Your task to perform on an android device: stop showing notifications on the lock screen Image 0: 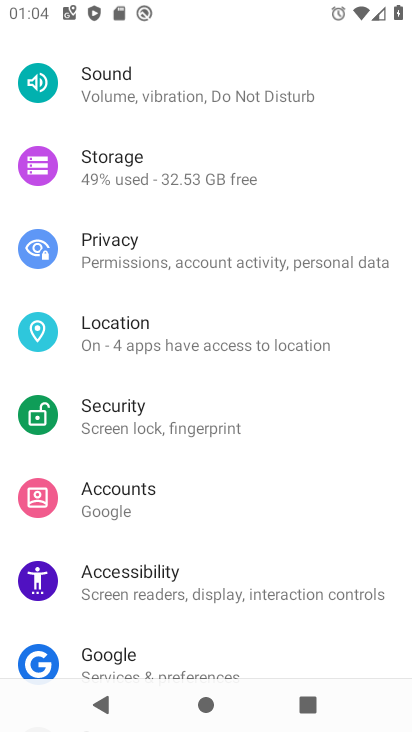
Step 0: press home button
Your task to perform on an android device: stop showing notifications on the lock screen Image 1: 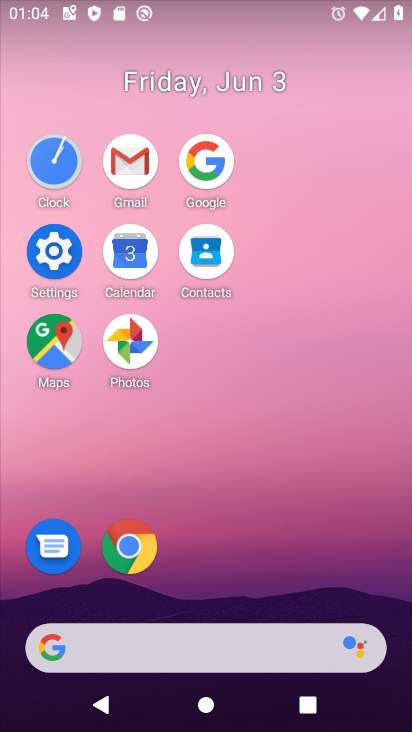
Step 1: click (67, 260)
Your task to perform on an android device: stop showing notifications on the lock screen Image 2: 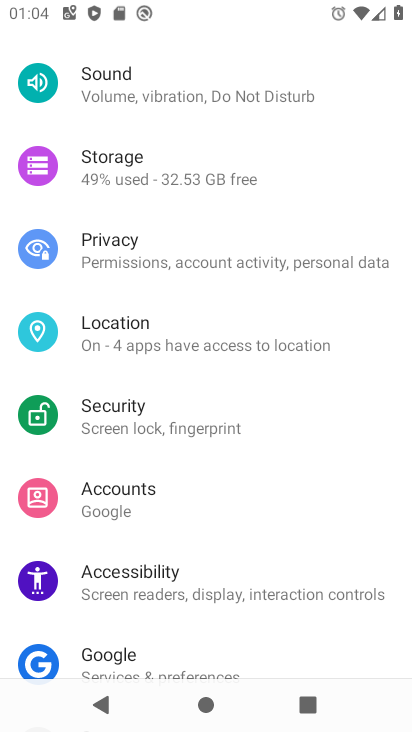
Step 2: drag from (375, 549) to (382, 599)
Your task to perform on an android device: stop showing notifications on the lock screen Image 3: 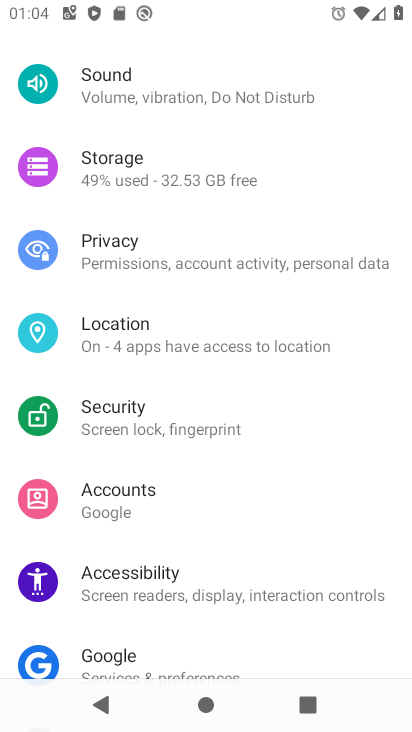
Step 3: drag from (233, 177) to (266, 494)
Your task to perform on an android device: stop showing notifications on the lock screen Image 4: 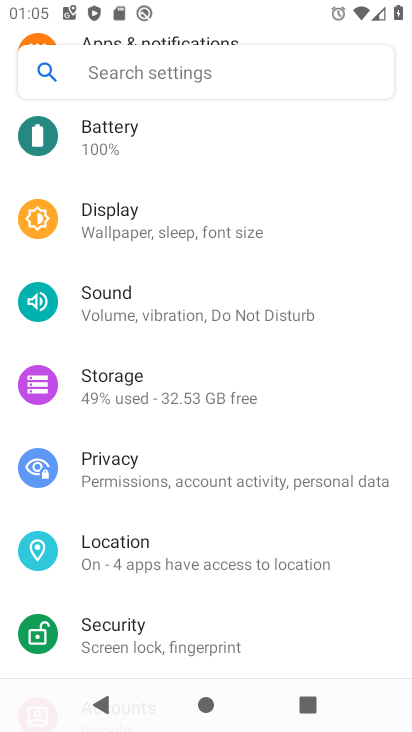
Step 4: drag from (304, 167) to (315, 586)
Your task to perform on an android device: stop showing notifications on the lock screen Image 5: 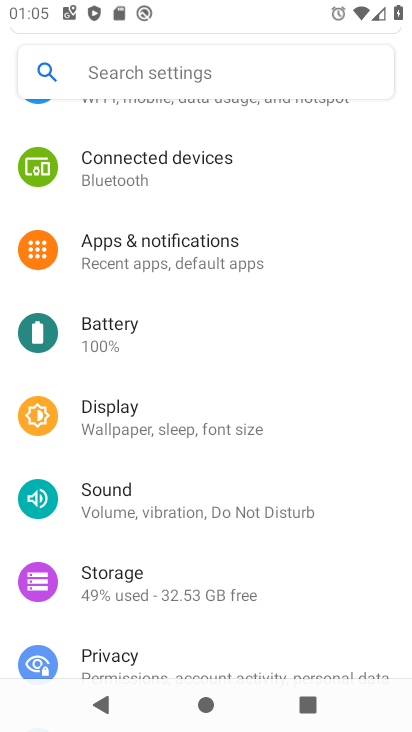
Step 5: click (235, 250)
Your task to perform on an android device: stop showing notifications on the lock screen Image 6: 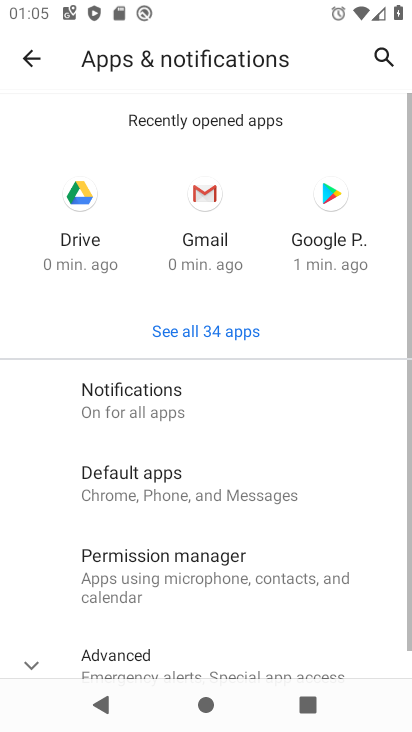
Step 6: click (214, 391)
Your task to perform on an android device: stop showing notifications on the lock screen Image 7: 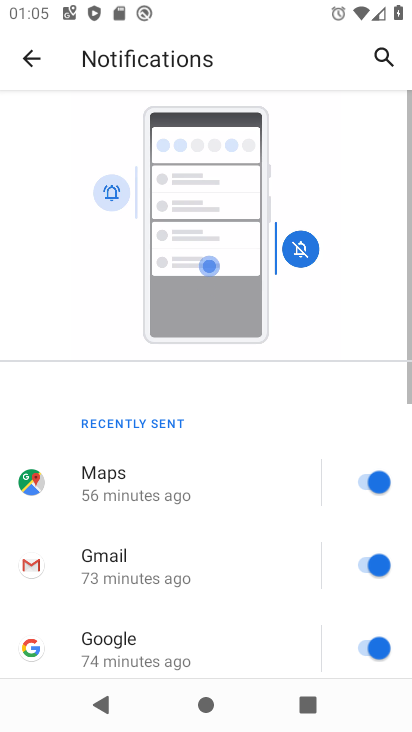
Step 7: drag from (179, 529) to (176, 107)
Your task to perform on an android device: stop showing notifications on the lock screen Image 8: 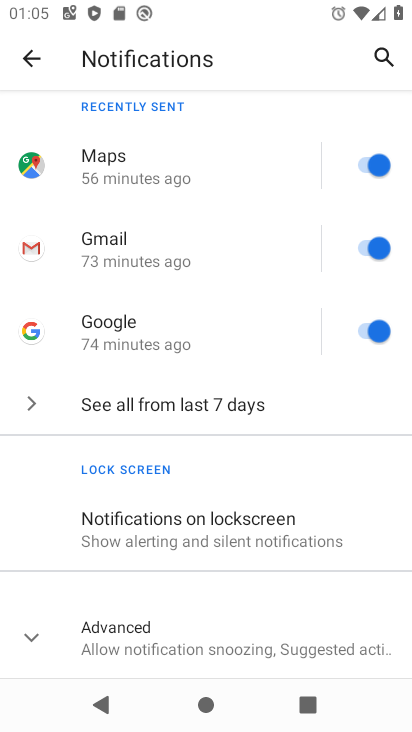
Step 8: click (260, 632)
Your task to perform on an android device: stop showing notifications on the lock screen Image 9: 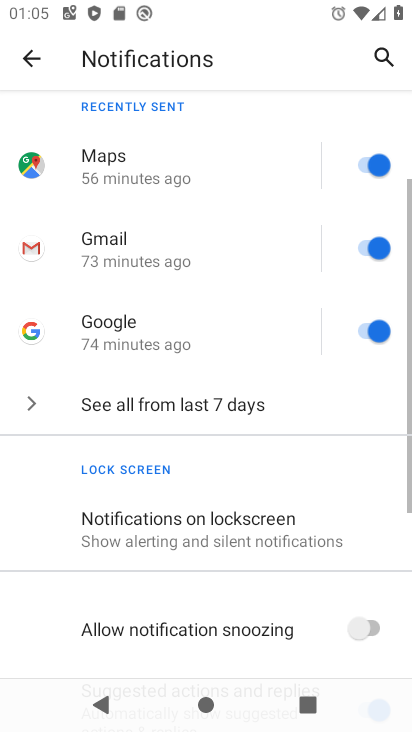
Step 9: click (273, 523)
Your task to perform on an android device: stop showing notifications on the lock screen Image 10: 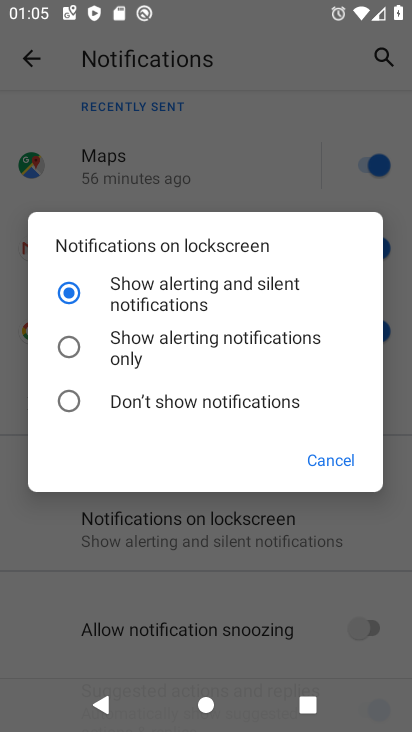
Step 10: click (149, 396)
Your task to perform on an android device: stop showing notifications on the lock screen Image 11: 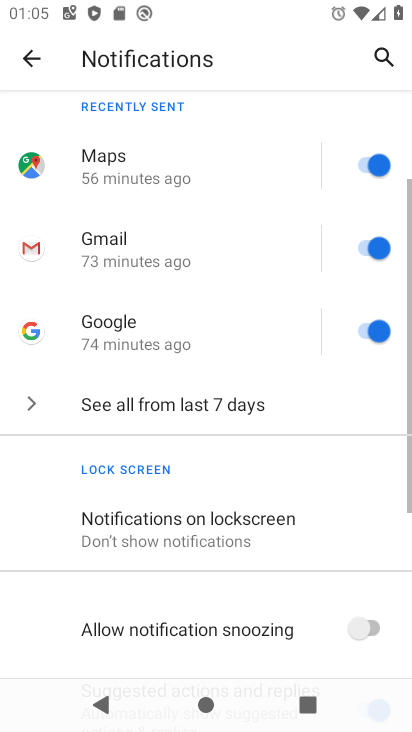
Step 11: task complete